Your task to perform on an android device: Open accessibility settings Image 0: 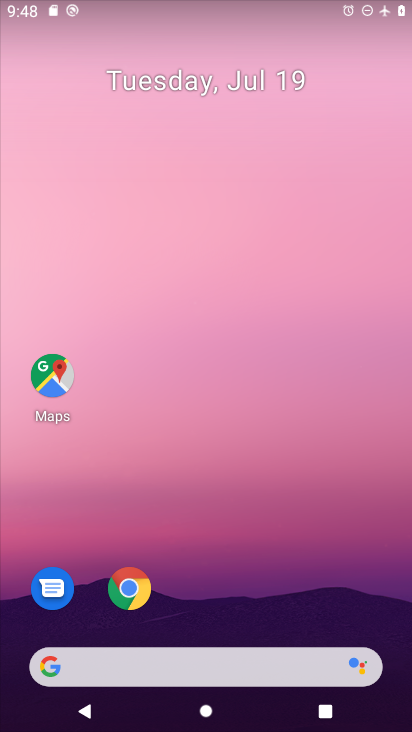
Step 0: drag from (345, 585) to (346, 137)
Your task to perform on an android device: Open accessibility settings Image 1: 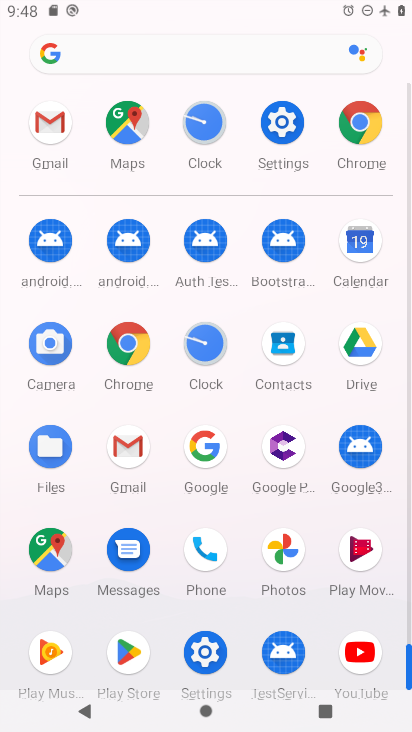
Step 1: click (276, 142)
Your task to perform on an android device: Open accessibility settings Image 2: 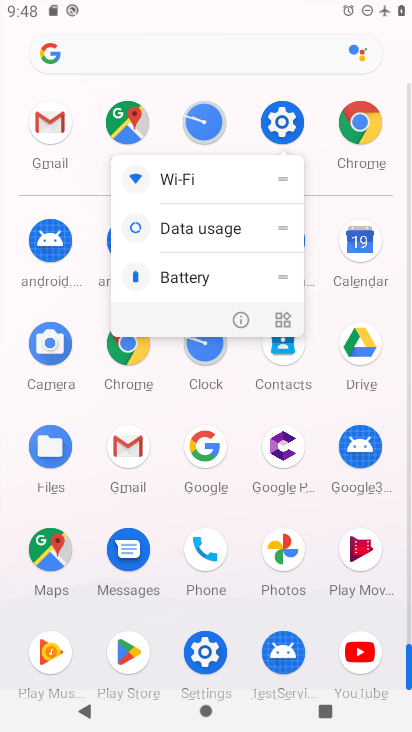
Step 2: click (276, 142)
Your task to perform on an android device: Open accessibility settings Image 3: 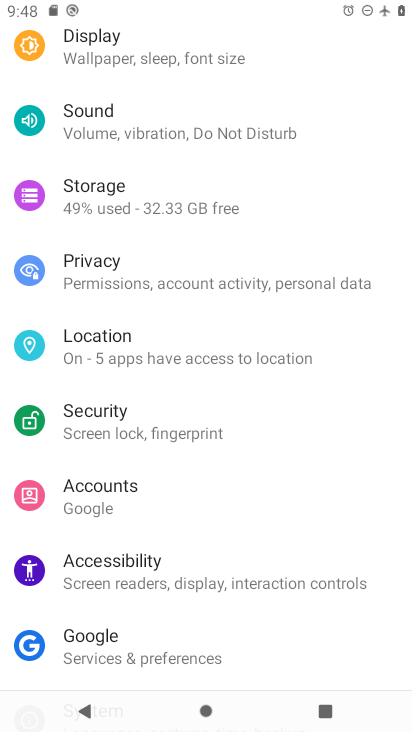
Step 3: drag from (362, 216) to (363, 291)
Your task to perform on an android device: Open accessibility settings Image 4: 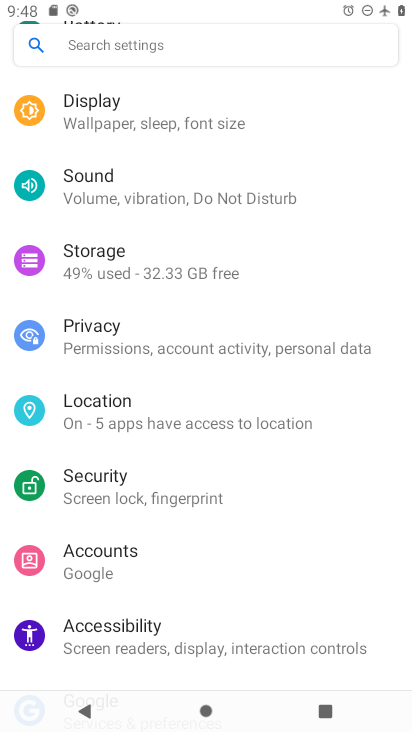
Step 4: drag from (367, 203) to (374, 289)
Your task to perform on an android device: Open accessibility settings Image 5: 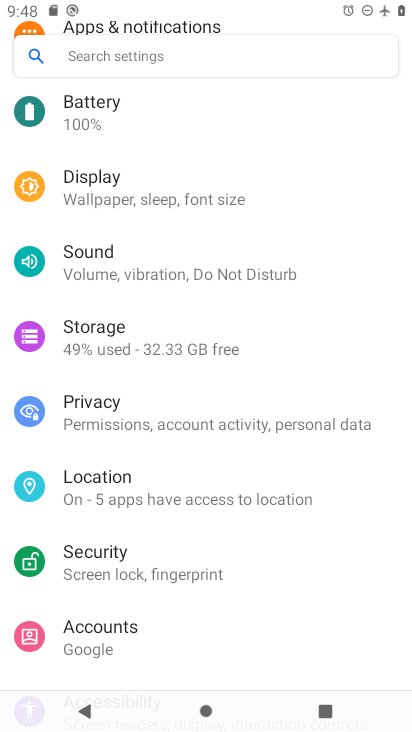
Step 5: drag from (373, 219) to (373, 296)
Your task to perform on an android device: Open accessibility settings Image 6: 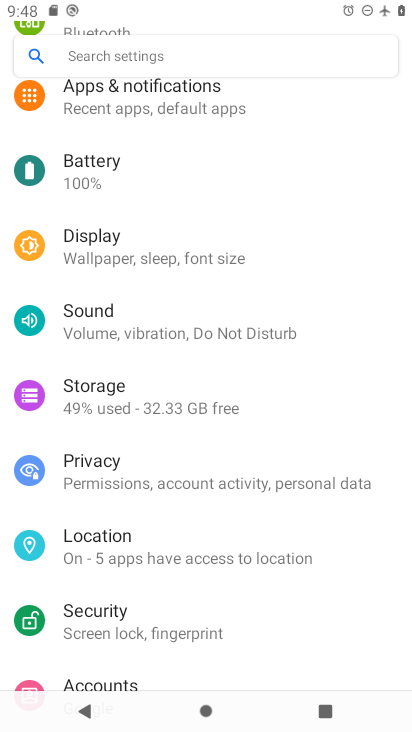
Step 6: drag from (352, 605) to (372, 491)
Your task to perform on an android device: Open accessibility settings Image 7: 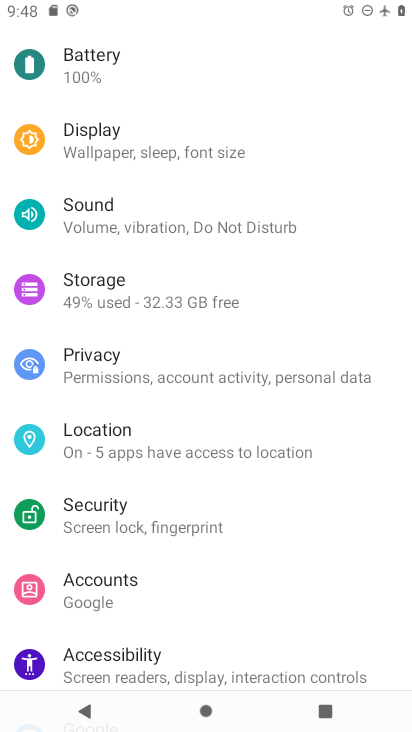
Step 7: drag from (323, 577) to (322, 467)
Your task to perform on an android device: Open accessibility settings Image 8: 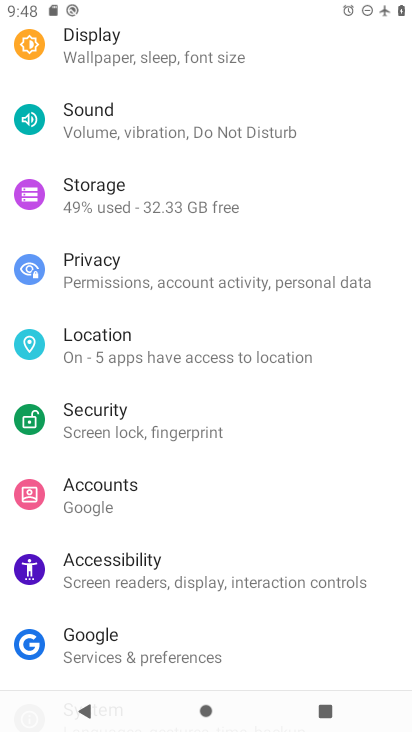
Step 8: click (304, 591)
Your task to perform on an android device: Open accessibility settings Image 9: 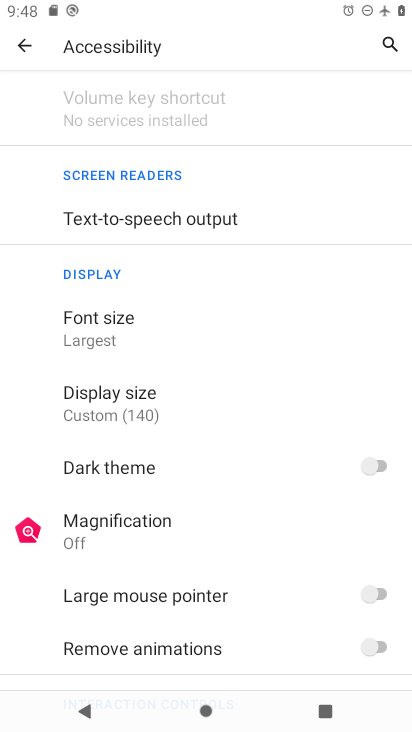
Step 9: task complete